Your task to perform on an android device: Go to wifi settings Image 0: 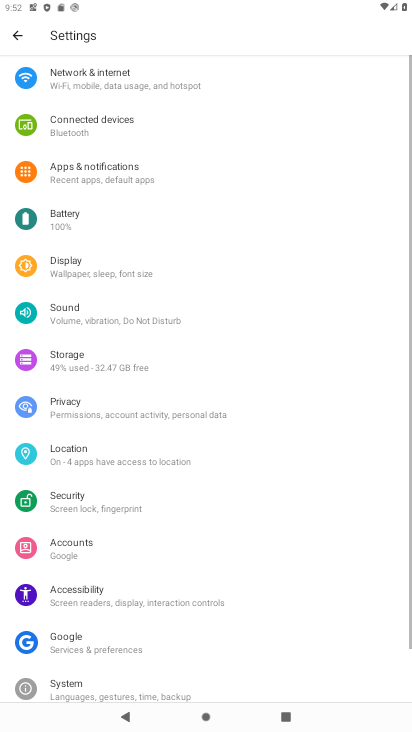
Step 0: click (165, 93)
Your task to perform on an android device: Go to wifi settings Image 1: 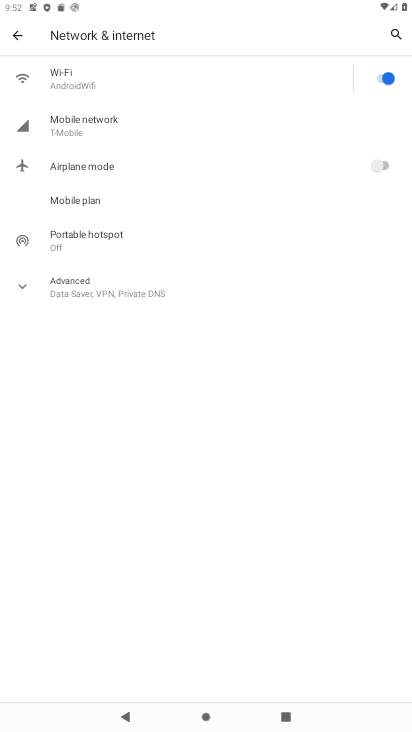
Step 1: click (144, 80)
Your task to perform on an android device: Go to wifi settings Image 2: 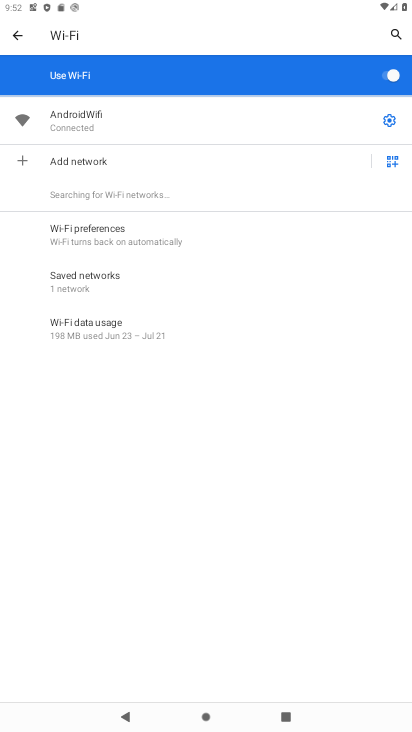
Step 2: task complete